Your task to perform on an android device: turn on improve location accuracy Image 0: 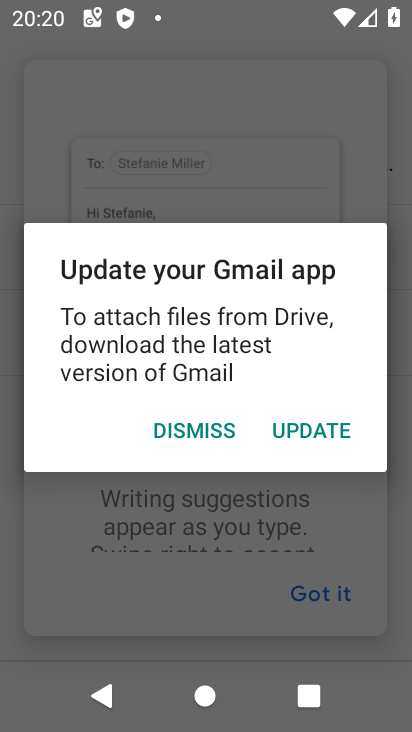
Step 0: press home button
Your task to perform on an android device: turn on improve location accuracy Image 1: 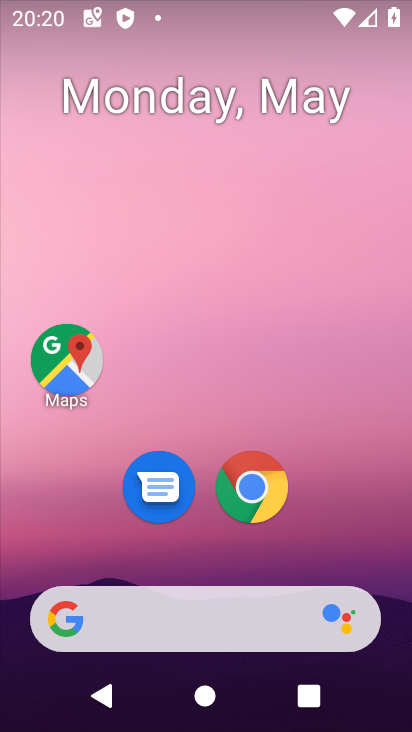
Step 1: drag from (379, 556) to (356, 166)
Your task to perform on an android device: turn on improve location accuracy Image 2: 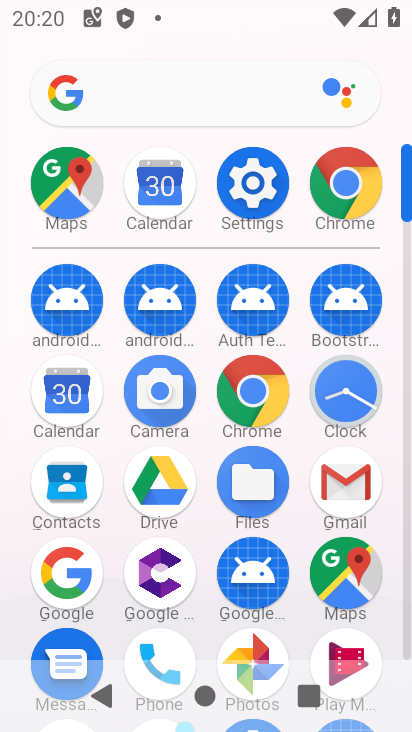
Step 2: click (259, 198)
Your task to perform on an android device: turn on improve location accuracy Image 3: 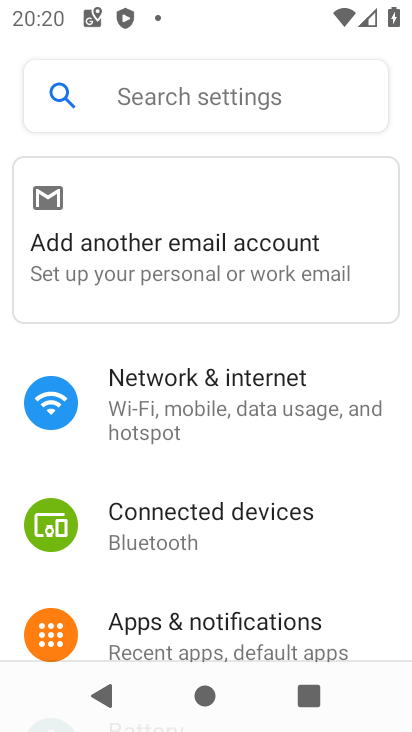
Step 3: drag from (358, 543) to (372, 406)
Your task to perform on an android device: turn on improve location accuracy Image 4: 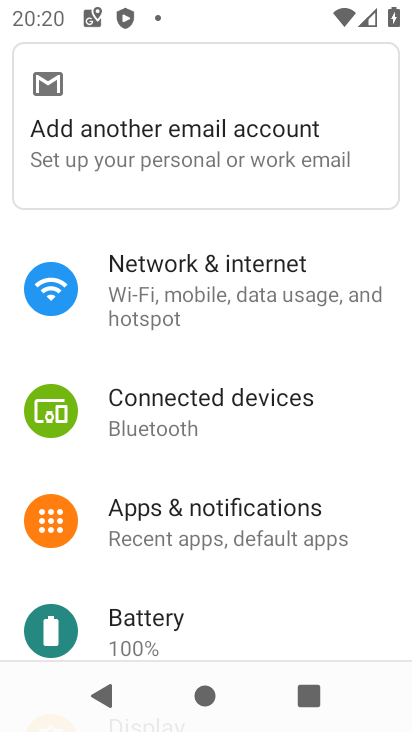
Step 4: drag from (366, 517) to (371, 402)
Your task to perform on an android device: turn on improve location accuracy Image 5: 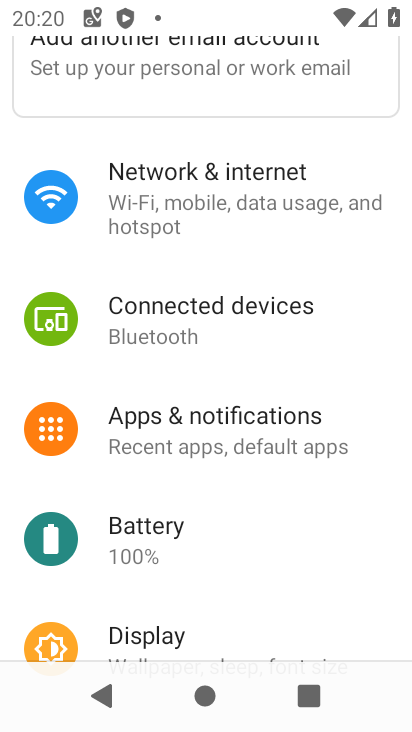
Step 5: drag from (366, 529) to (379, 424)
Your task to perform on an android device: turn on improve location accuracy Image 6: 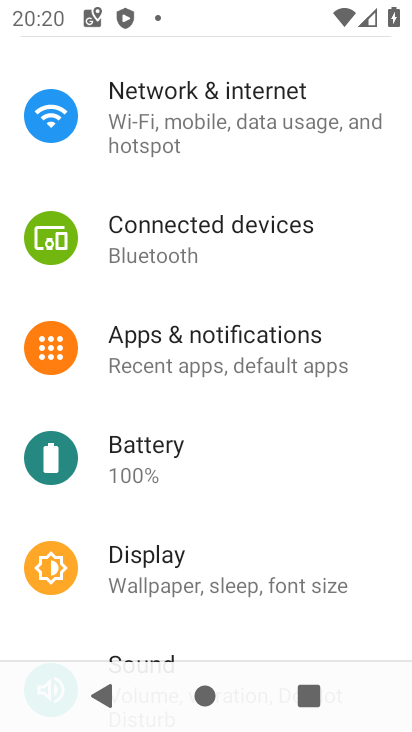
Step 6: drag from (373, 536) to (369, 432)
Your task to perform on an android device: turn on improve location accuracy Image 7: 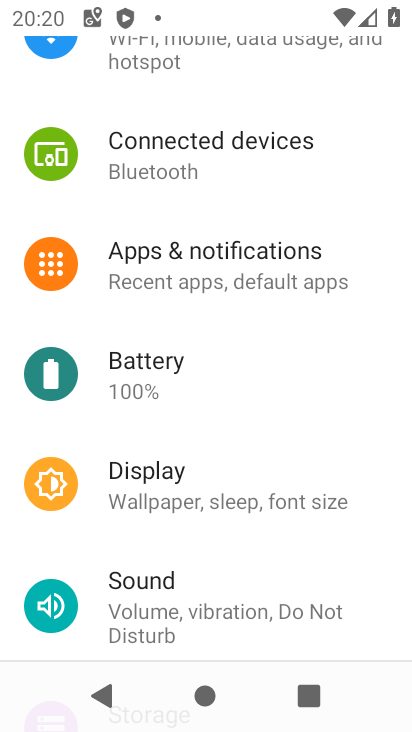
Step 7: drag from (351, 558) to (349, 424)
Your task to perform on an android device: turn on improve location accuracy Image 8: 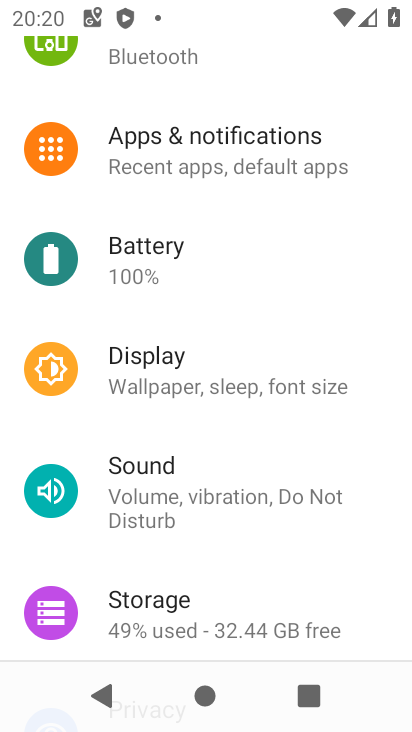
Step 8: drag from (367, 578) to (379, 447)
Your task to perform on an android device: turn on improve location accuracy Image 9: 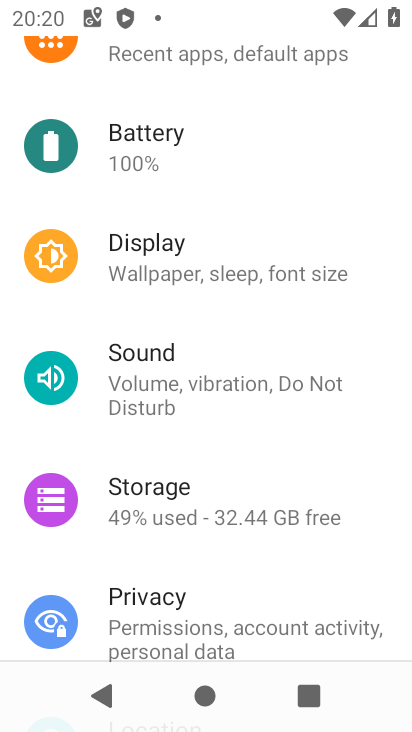
Step 9: drag from (369, 576) to (369, 462)
Your task to perform on an android device: turn on improve location accuracy Image 10: 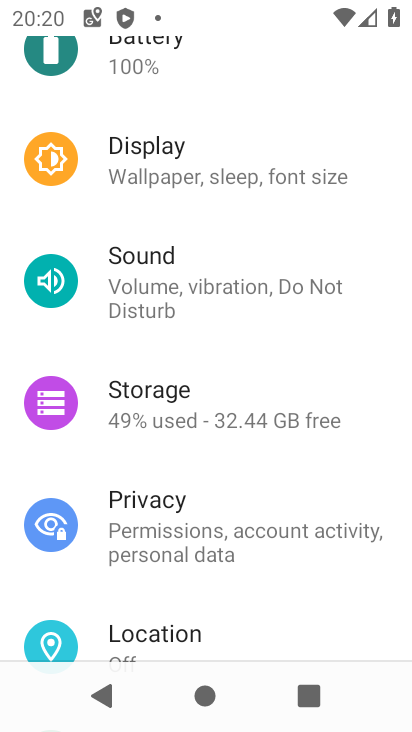
Step 10: drag from (335, 614) to (356, 497)
Your task to perform on an android device: turn on improve location accuracy Image 11: 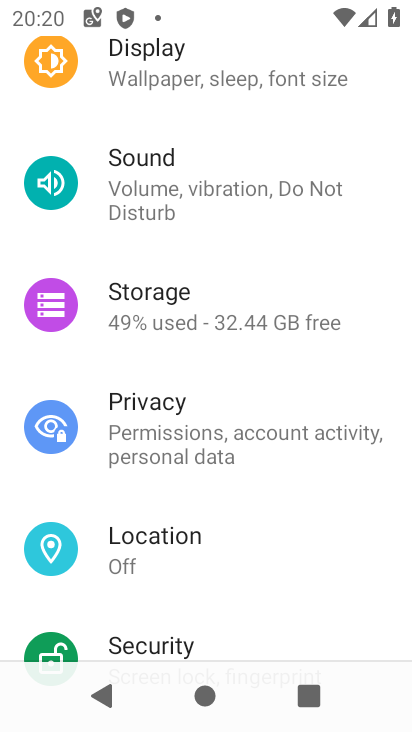
Step 11: drag from (355, 583) to (353, 464)
Your task to perform on an android device: turn on improve location accuracy Image 12: 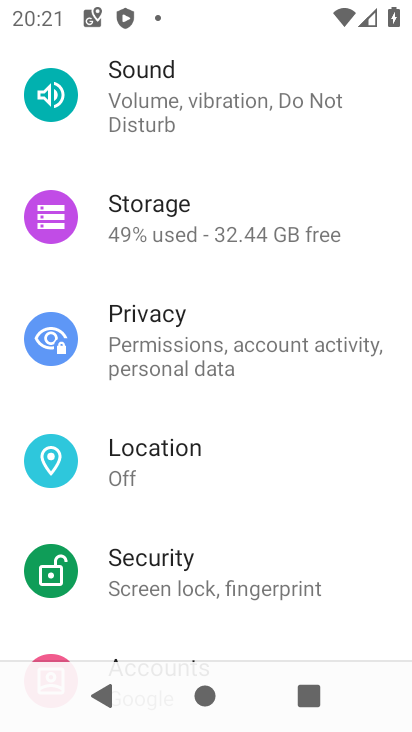
Step 12: drag from (347, 600) to (341, 484)
Your task to perform on an android device: turn on improve location accuracy Image 13: 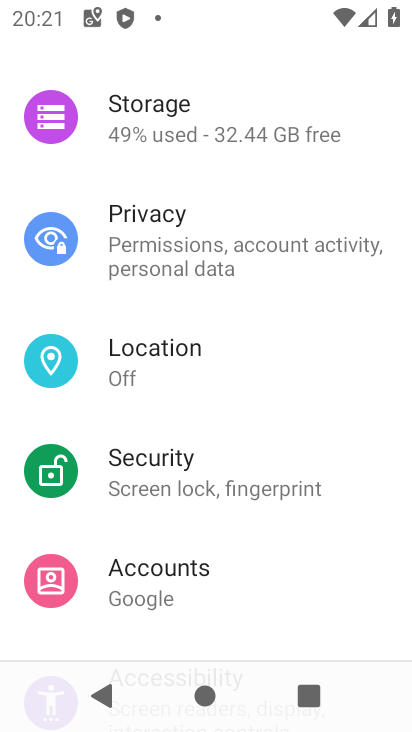
Step 13: click (163, 368)
Your task to perform on an android device: turn on improve location accuracy Image 14: 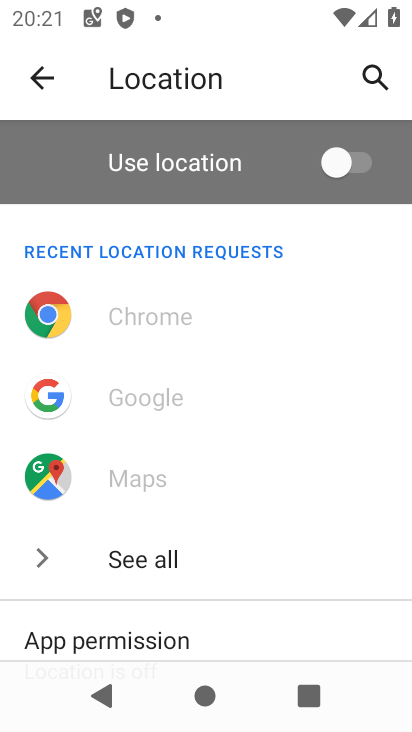
Step 14: drag from (359, 608) to (367, 485)
Your task to perform on an android device: turn on improve location accuracy Image 15: 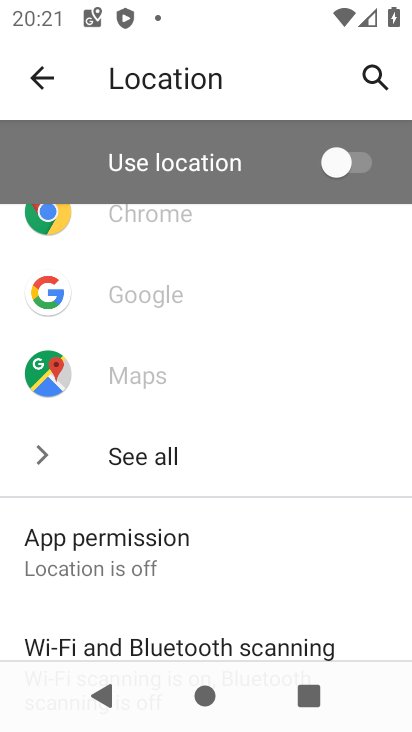
Step 15: drag from (378, 599) to (380, 436)
Your task to perform on an android device: turn on improve location accuracy Image 16: 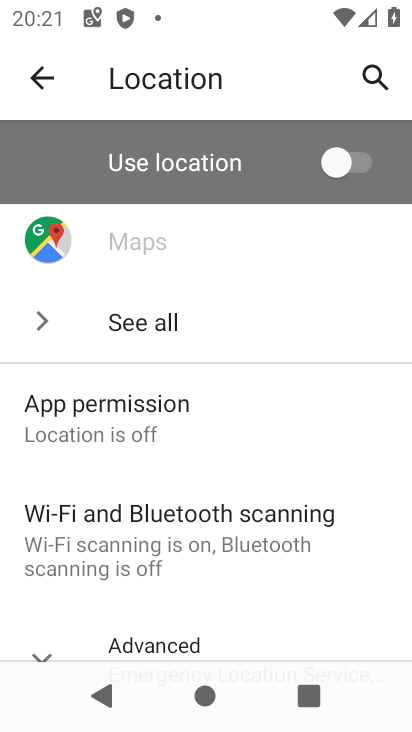
Step 16: drag from (369, 625) to (369, 395)
Your task to perform on an android device: turn on improve location accuracy Image 17: 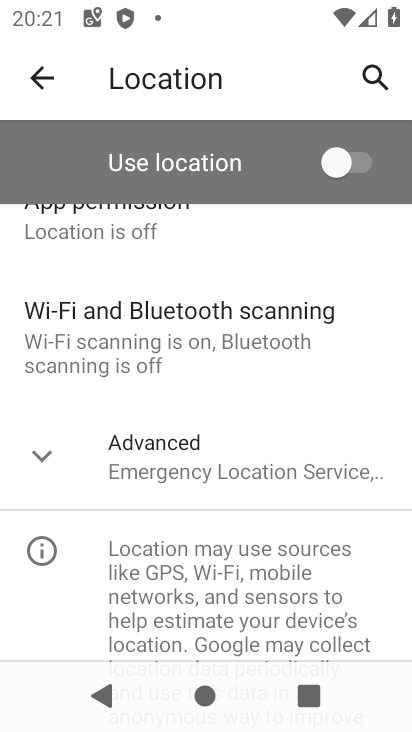
Step 17: drag from (366, 615) to (368, 419)
Your task to perform on an android device: turn on improve location accuracy Image 18: 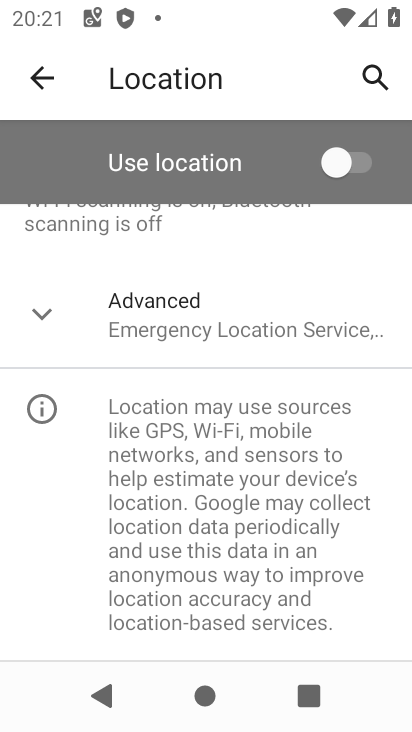
Step 18: click (246, 322)
Your task to perform on an android device: turn on improve location accuracy Image 19: 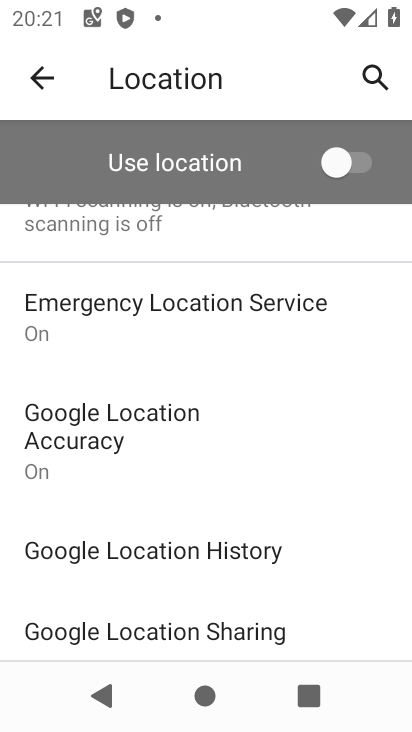
Step 19: drag from (365, 566) to (350, 418)
Your task to perform on an android device: turn on improve location accuracy Image 20: 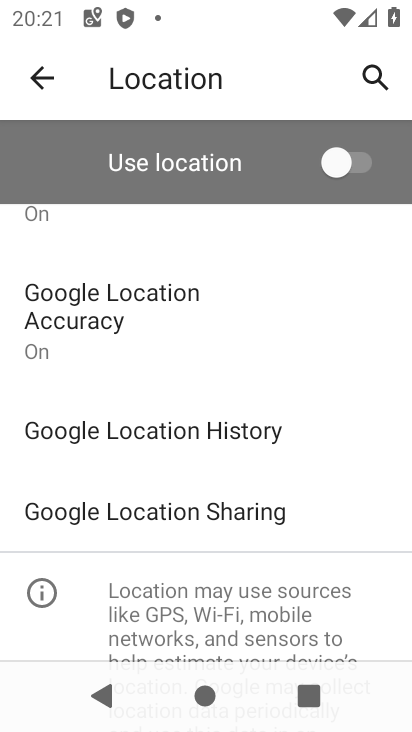
Step 20: click (135, 322)
Your task to perform on an android device: turn on improve location accuracy Image 21: 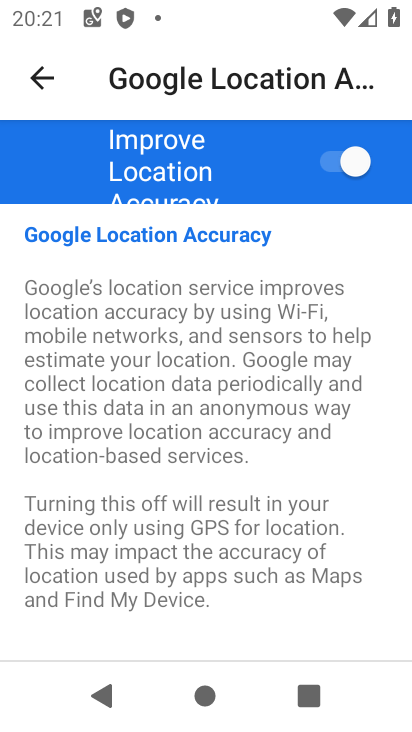
Step 21: task complete